Your task to perform on an android device: Open calendar and show me the third week of next month Image 0: 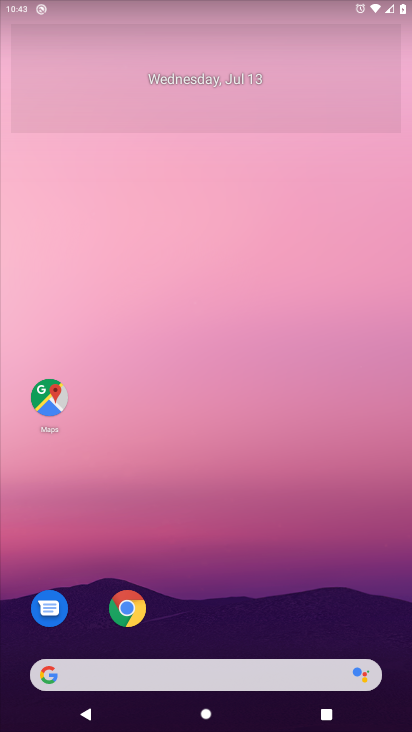
Step 0: drag from (65, 497) to (182, 43)
Your task to perform on an android device: Open calendar and show me the third week of next month Image 1: 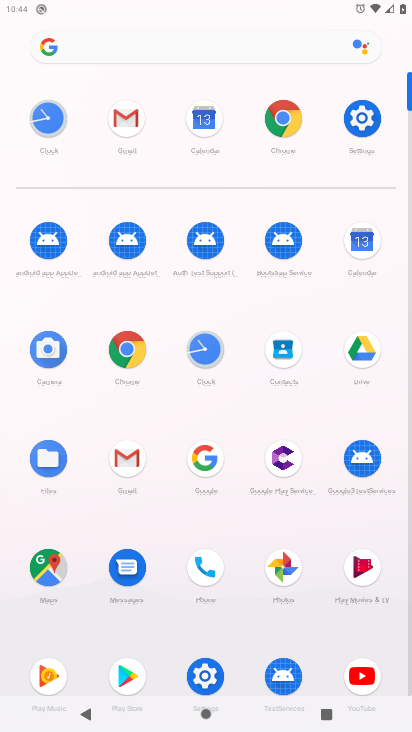
Step 1: click (357, 240)
Your task to perform on an android device: Open calendar and show me the third week of next month Image 2: 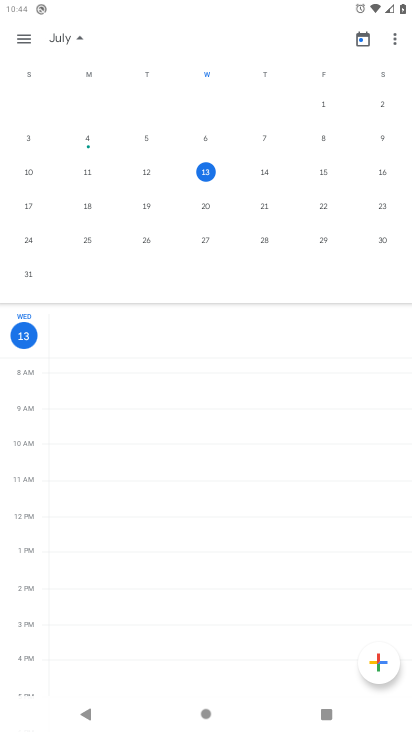
Step 2: drag from (376, 148) to (5, 275)
Your task to perform on an android device: Open calendar and show me the third week of next month Image 3: 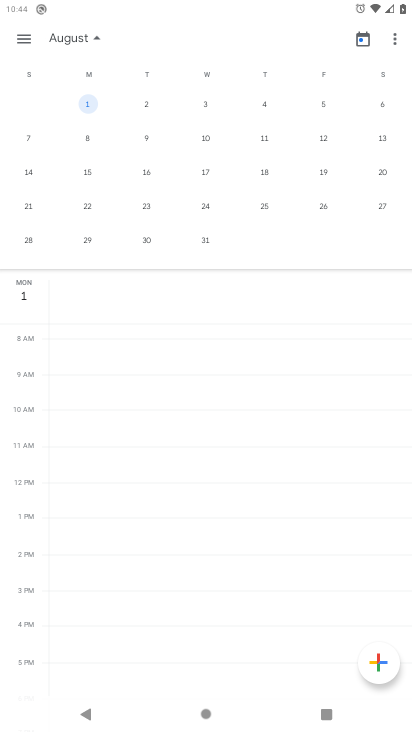
Step 3: drag from (266, 130) to (12, 154)
Your task to perform on an android device: Open calendar and show me the third week of next month Image 4: 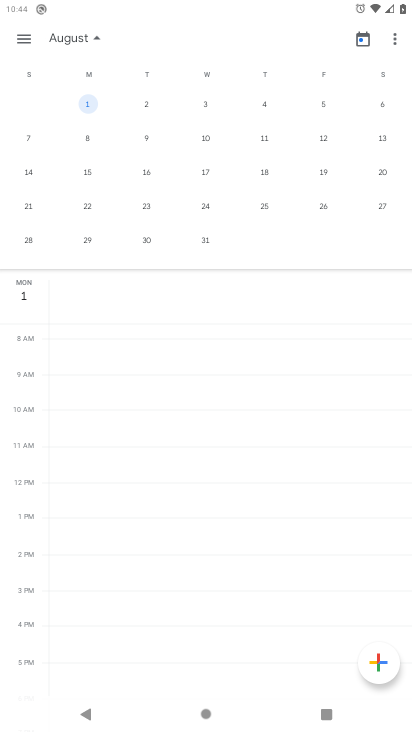
Step 4: click (82, 172)
Your task to perform on an android device: Open calendar and show me the third week of next month Image 5: 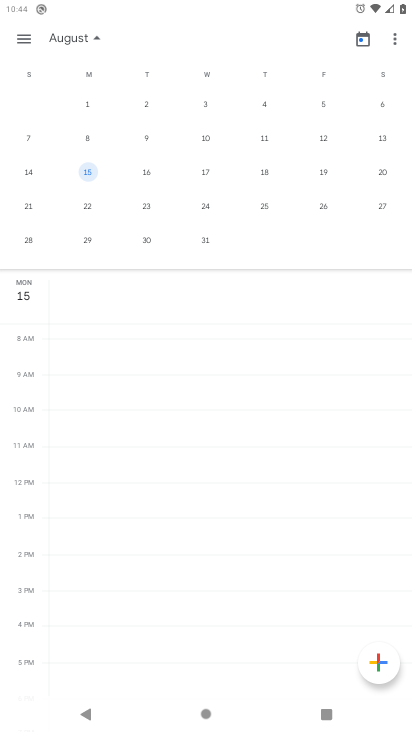
Step 5: task complete